Your task to perform on an android device: Is it going to rain this weekend? Image 0: 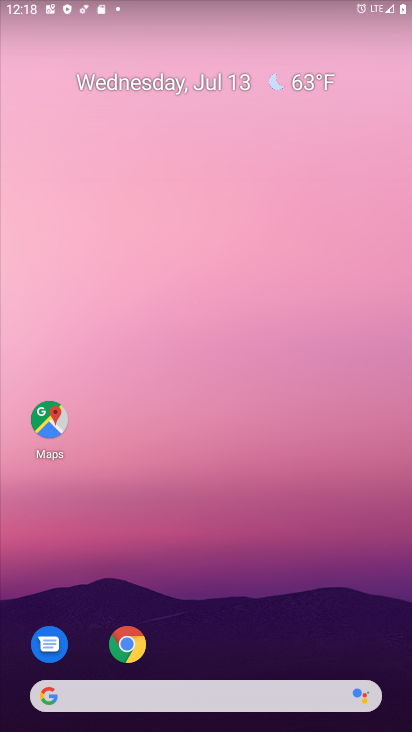
Step 0: drag from (196, 695) to (265, 106)
Your task to perform on an android device: Is it going to rain this weekend? Image 1: 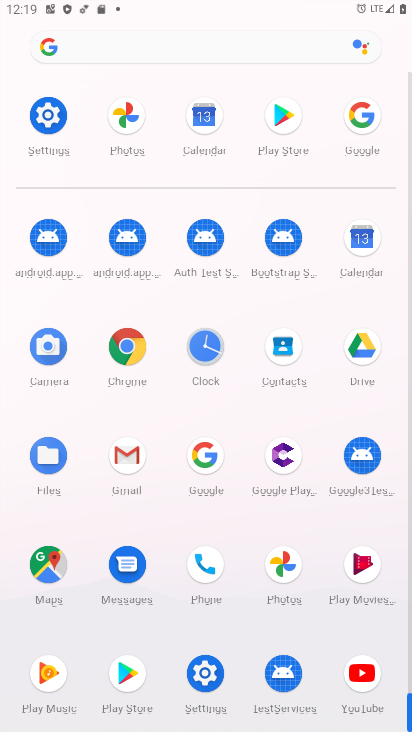
Step 1: click (360, 115)
Your task to perform on an android device: Is it going to rain this weekend? Image 2: 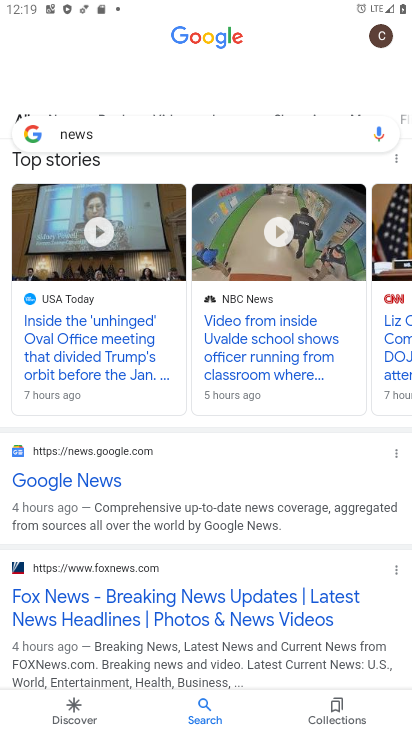
Step 2: click (312, 138)
Your task to perform on an android device: Is it going to rain this weekend? Image 3: 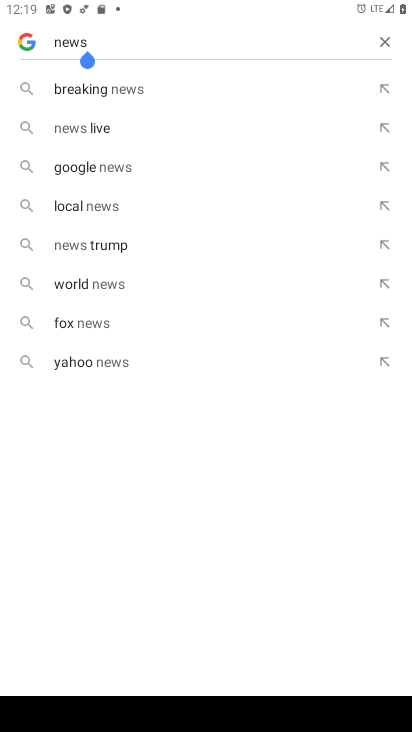
Step 3: click (385, 39)
Your task to perform on an android device: Is it going to rain this weekend? Image 4: 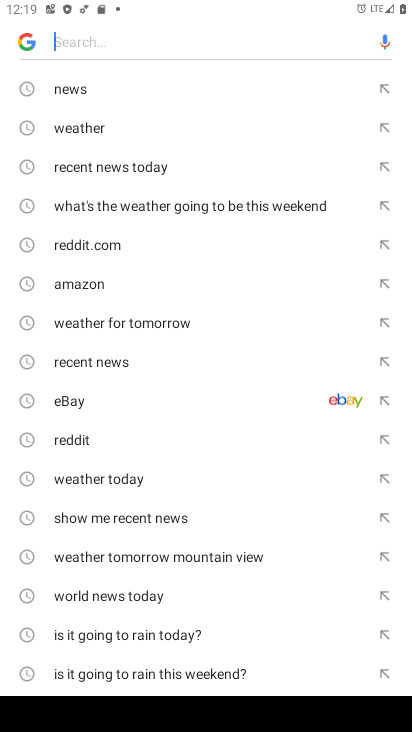
Step 4: type "Is it going to rain this weekend?"
Your task to perform on an android device: Is it going to rain this weekend? Image 5: 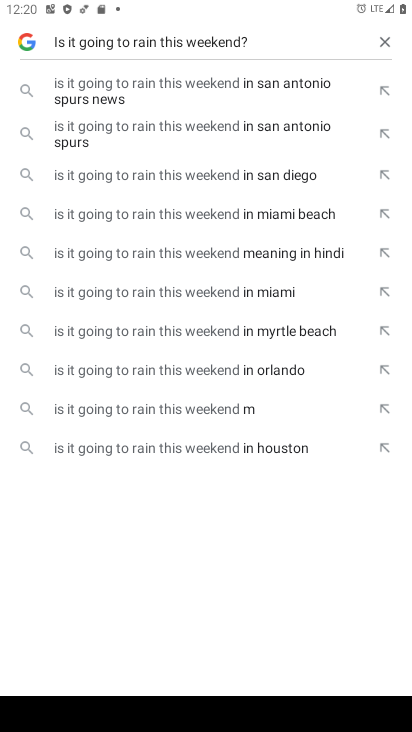
Step 5: click (202, 170)
Your task to perform on an android device: Is it going to rain this weekend? Image 6: 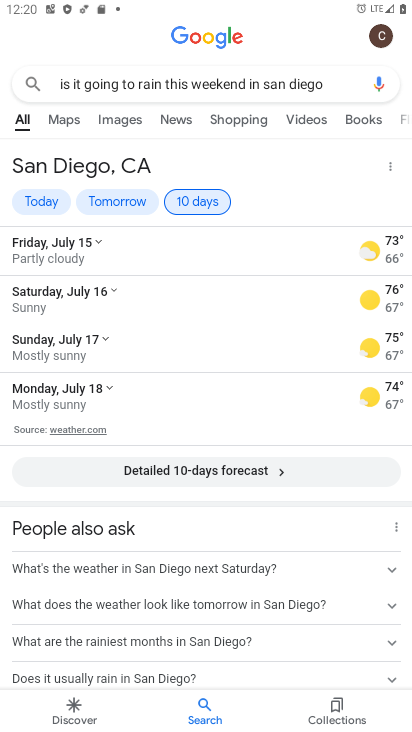
Step 6: task complete